Your task to perform on an android device: change notifications settings Image 0: 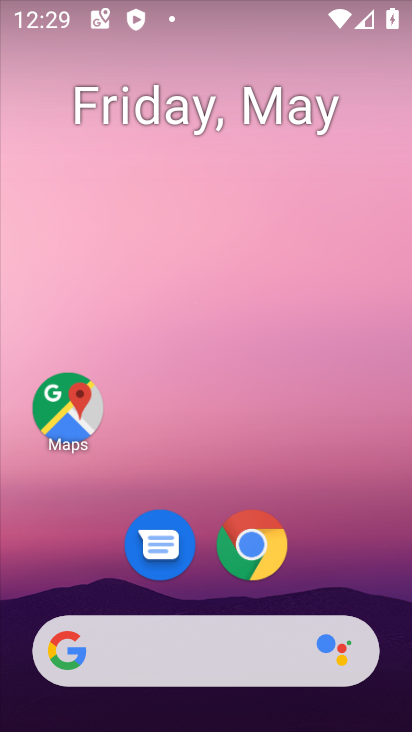
Step 0: drag from (336, 493) to (304, 183)
Your task to perform on an android device: change notifications settings Image 1: 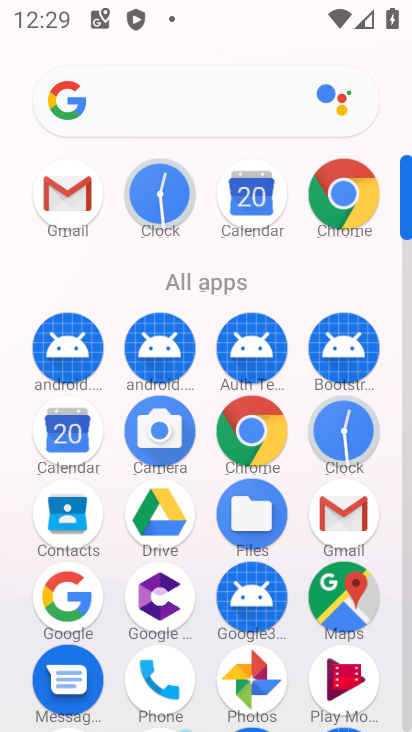
Step 1: drag from (295, 572) to (244, 276)
Your task to perform on an android device: change notifications settings Image 2: 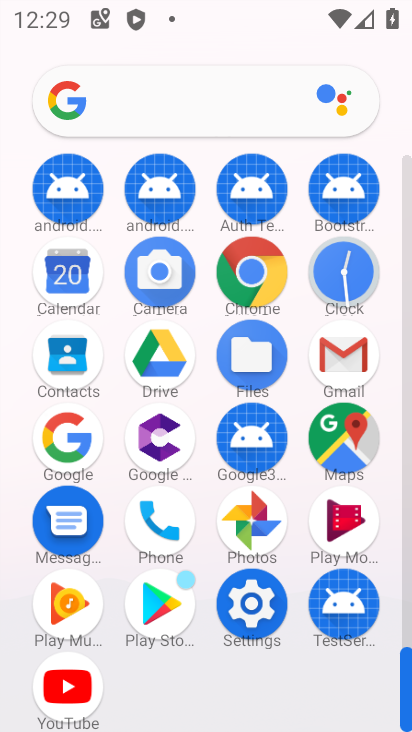
Step 2: click (244, 602)
Your task to perform on an android device: change notifications settings Image 3: 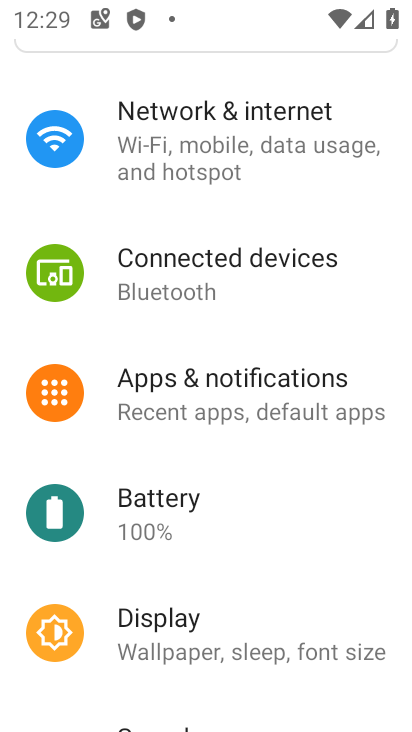
Step 3: click (165, 386)
Your task to perform on an android device: change notifications settings Image 4: 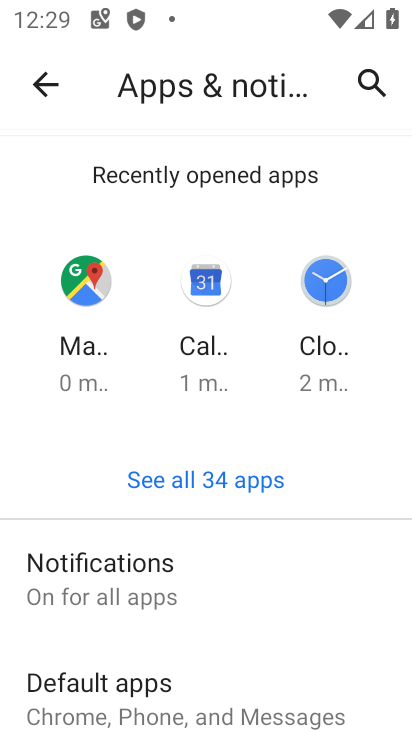
Step 4: click (185, 584)
Your task to perform on an android device: change notifications settings Image 5: 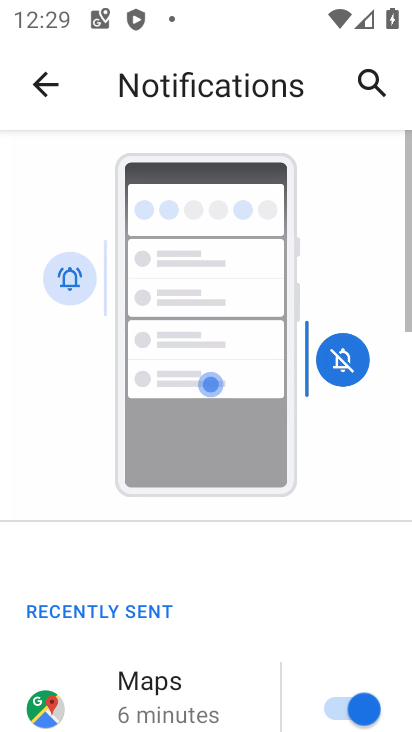
Step 5: drag from (187, 572) to (237, 286)
Your task to perform on an android device: change notifications settings Image 6: 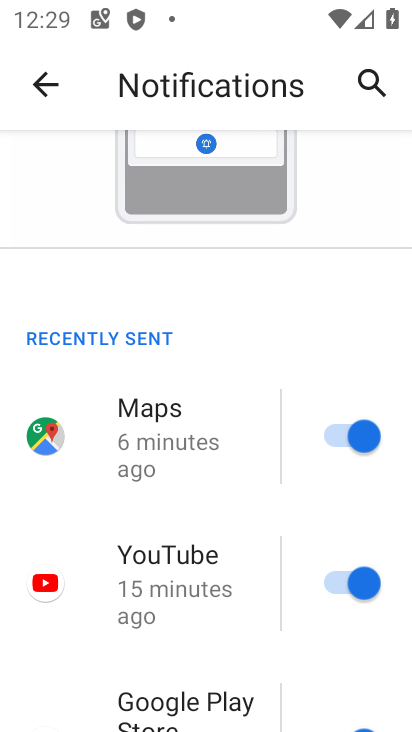
Step 6: drag from (241, 551) to (300, 177)
Your task to perform on an android device: change notifications settings Image 7: 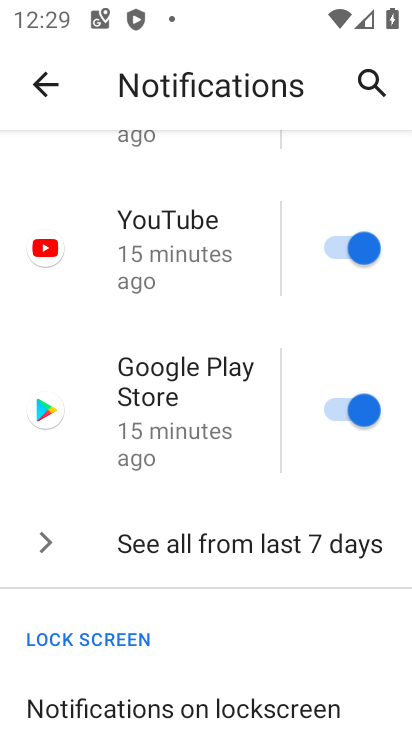
Step 7: drag from (190, 573) to (261, 154)
Your task to perform on an android device: change notifications settings Image 8: 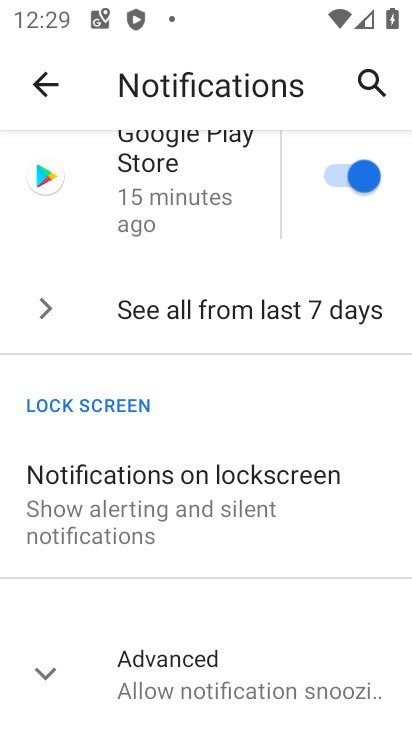
Step 8: click (295, 494)
Your task to perform on an android device: change notifications settings Image 9: 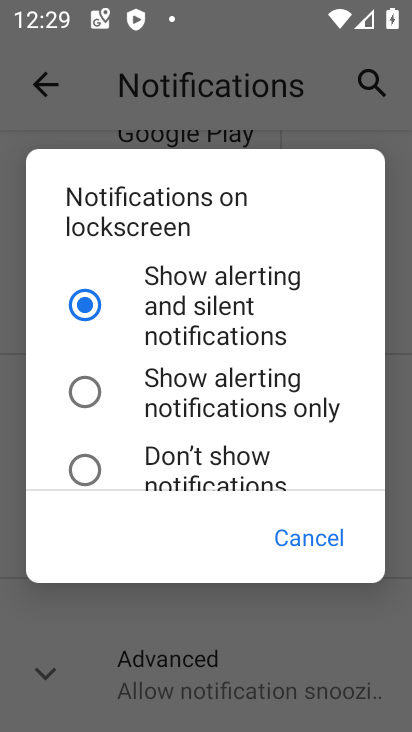
Step 9: click (300, 536)
Your task to perform on an android device: change notifications settings Image 10: 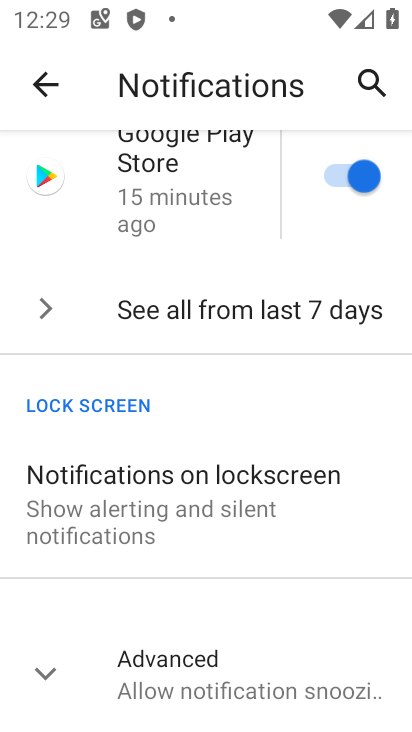
Step 10: click (303, 662)
Your task to perform on an android device: change notifications settings Image 11: 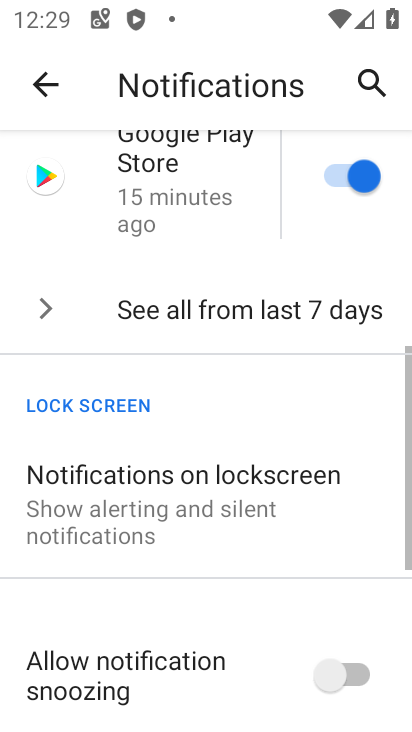
Step 11: task complete